Your task to perform on an android device: Open my contact list Image 0: 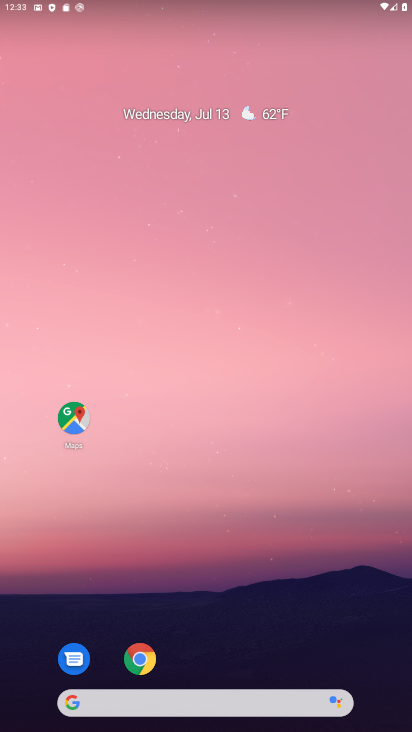
Step 0: drag from (171, 700) to (244, 218)
Your task to perform on an android device: Open my contact list Image 1: 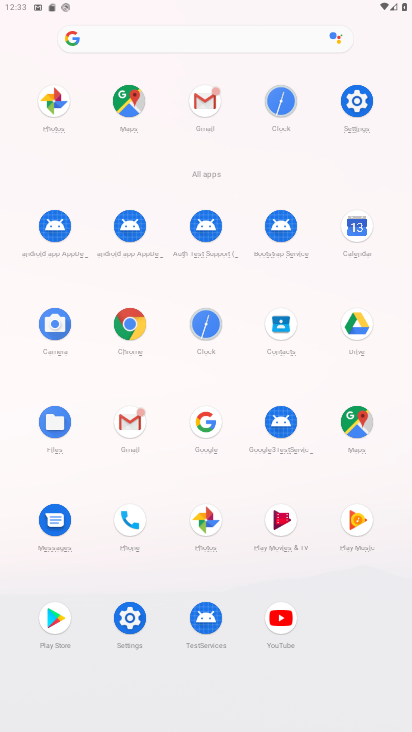
Step 1: click (281, 335)
Your task to perform on an android device: Open my contact list Image 2: 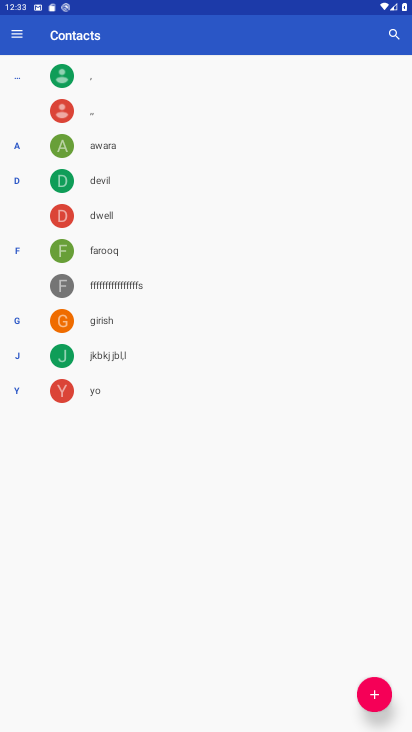
Step 2: task complete